Your task to perform on an android device: Open the stopwatch Image 0: 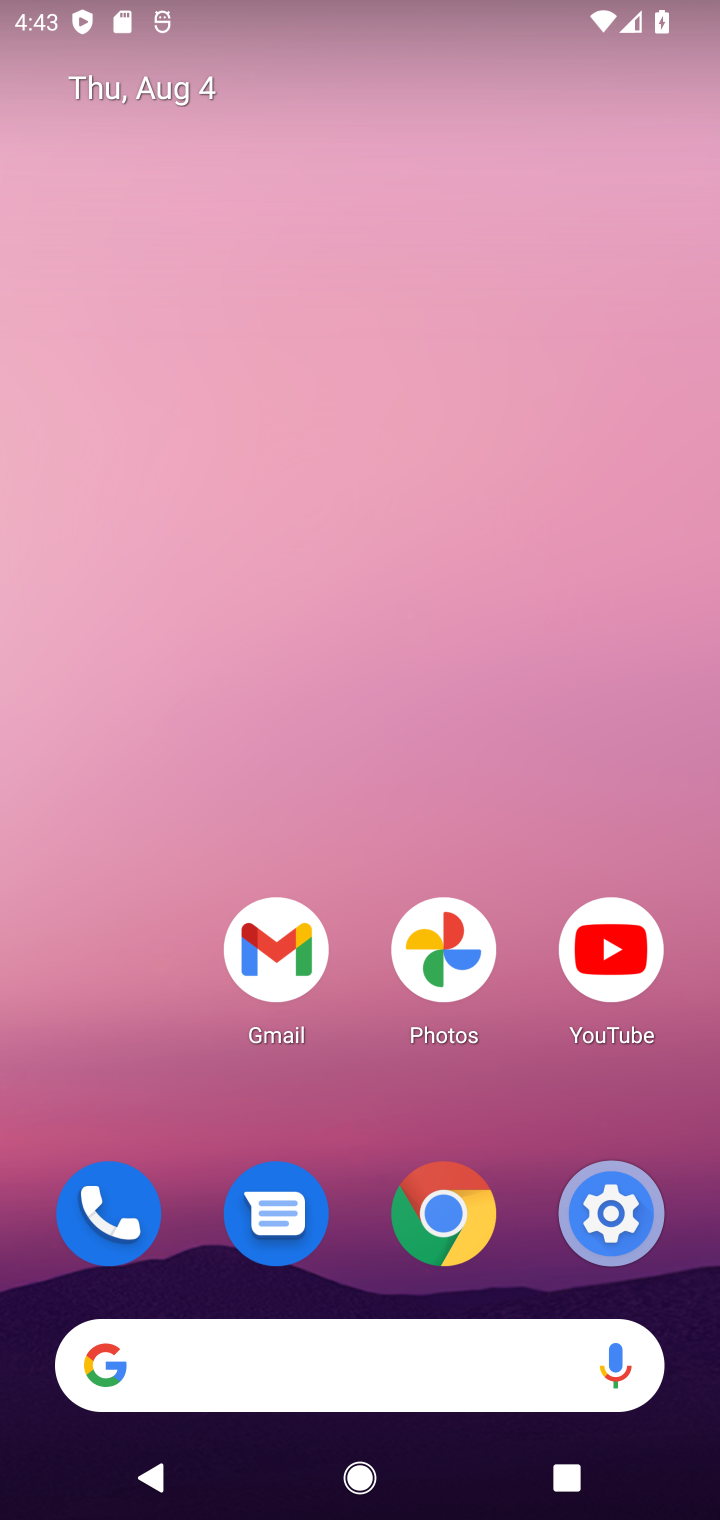
Step 0: drag from (291, 1345) to (335, 323)
Your task to perform on an android device: Open the stopwatch Image 1: 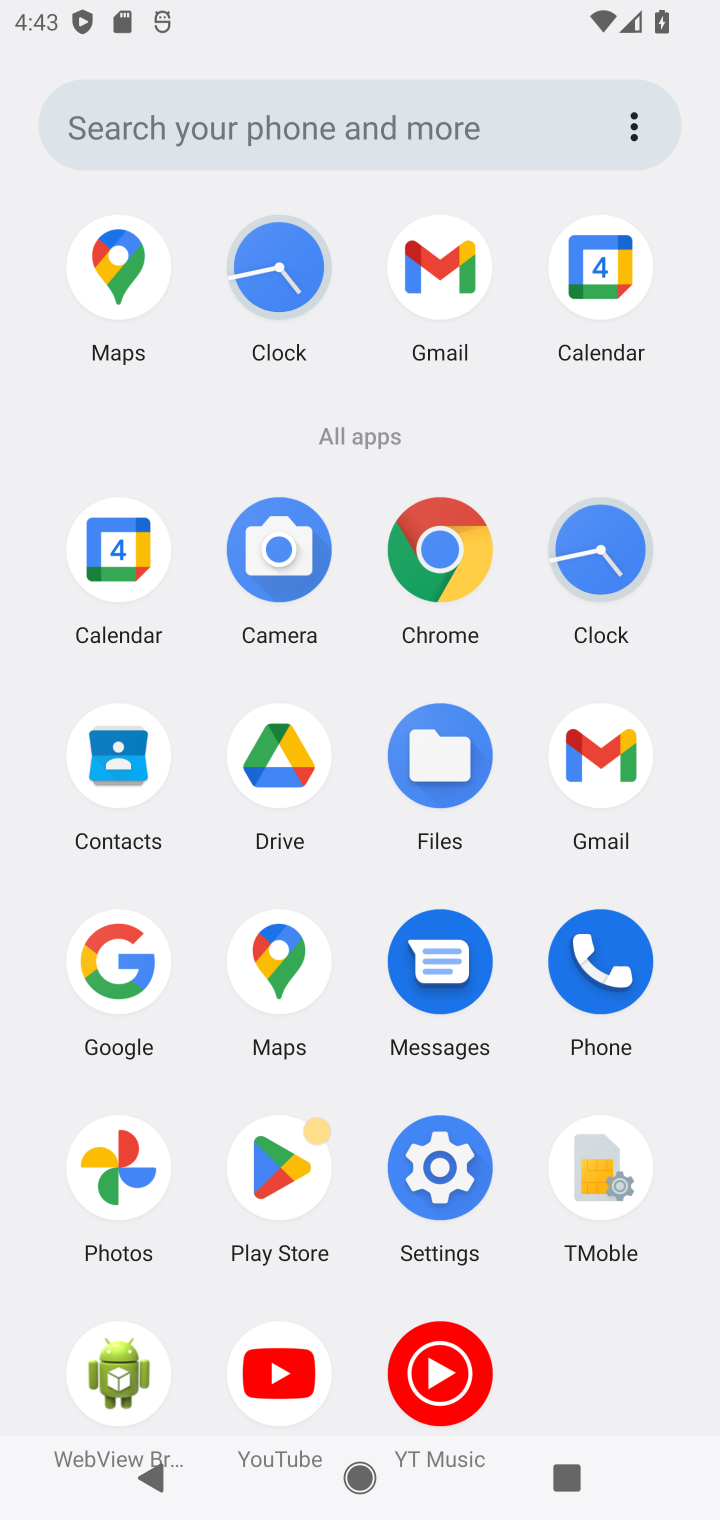
Step 1: click (279, 268)
Your task to perform on an android device: Open the stopwatch Image 2: 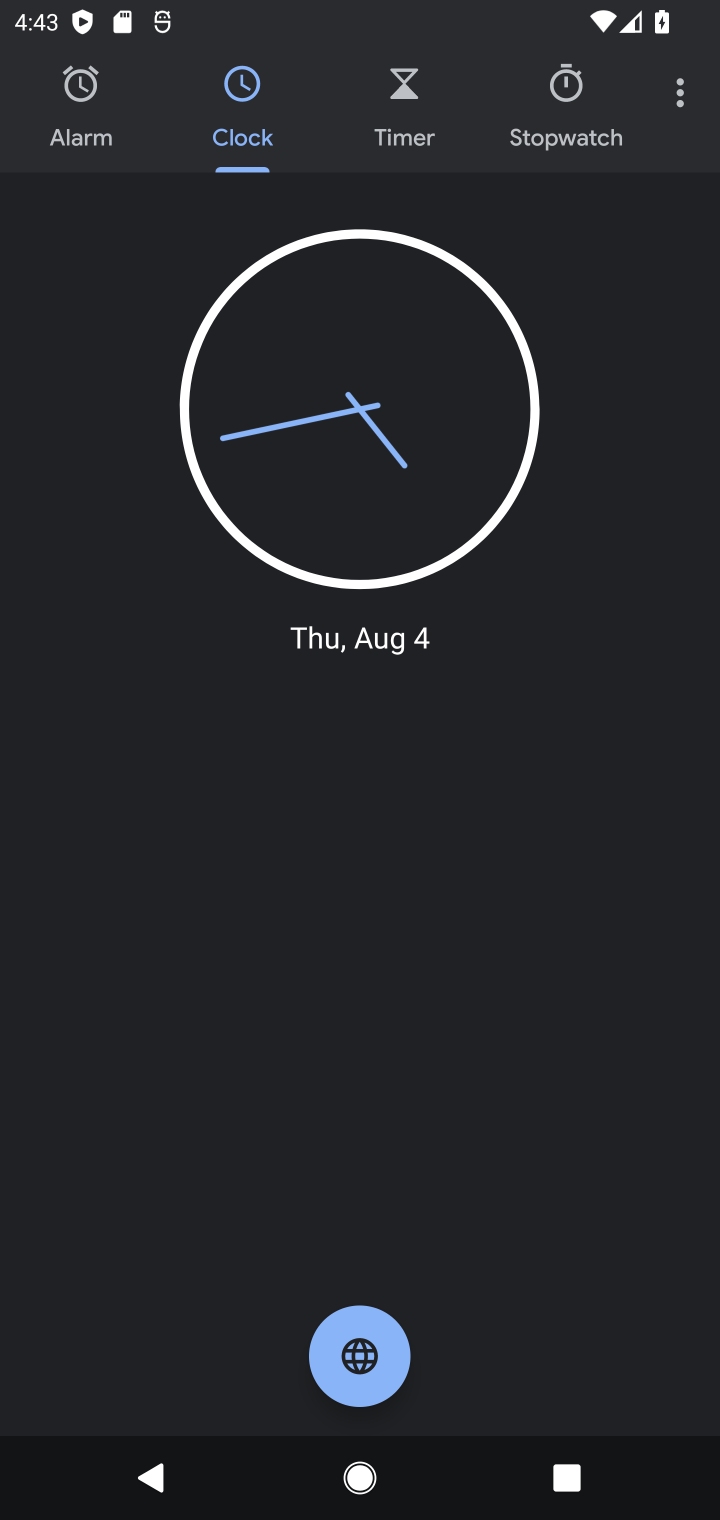
Step 2: click (570, 86)
Your task to perform on an android device: Open the stopwatch Image 3: 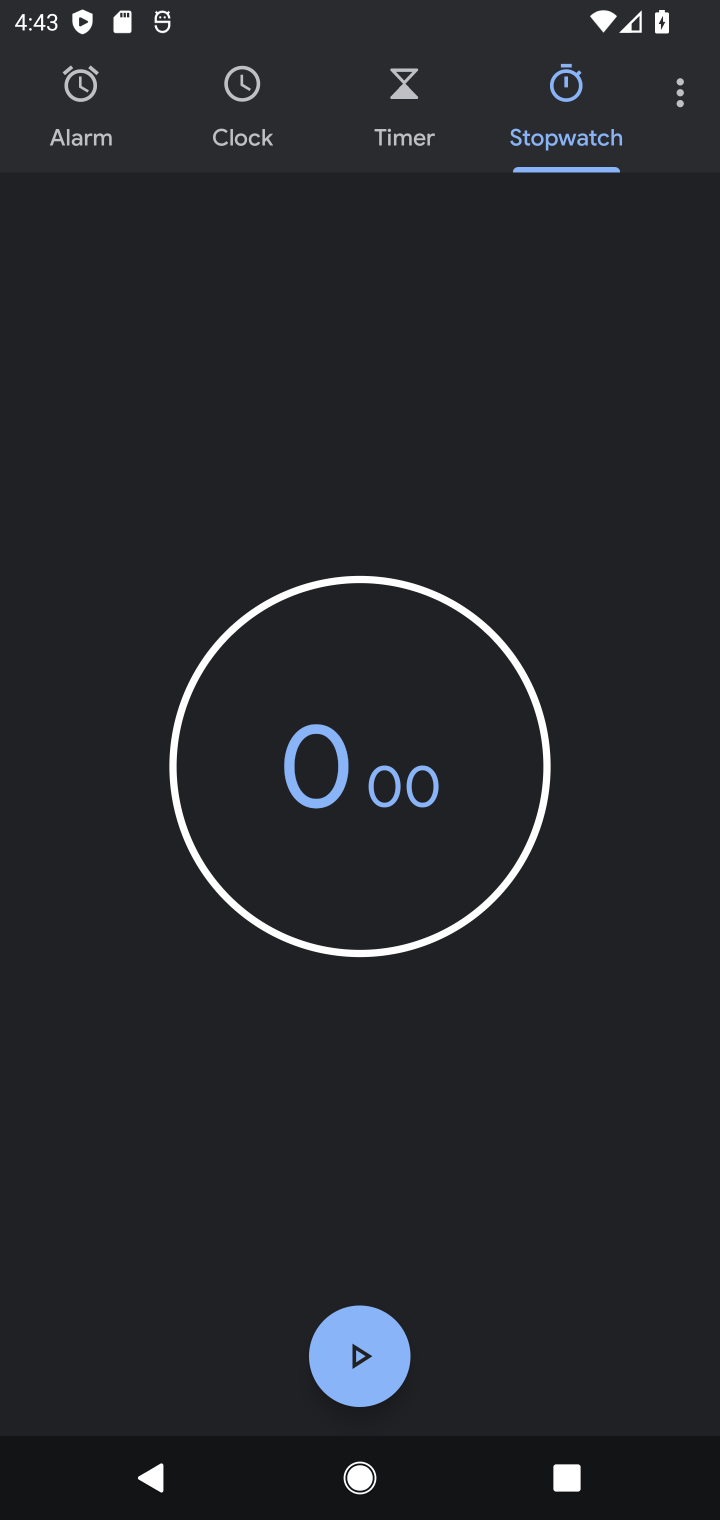
Step 3: task complete